Your task to perform on an android device: turn off location history Image 0: 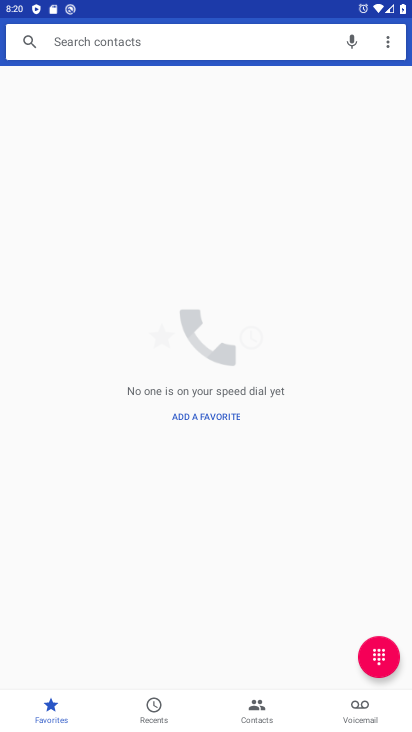
Step 0: press back button
Your task to perform on an android device: turn off location history Image 1: 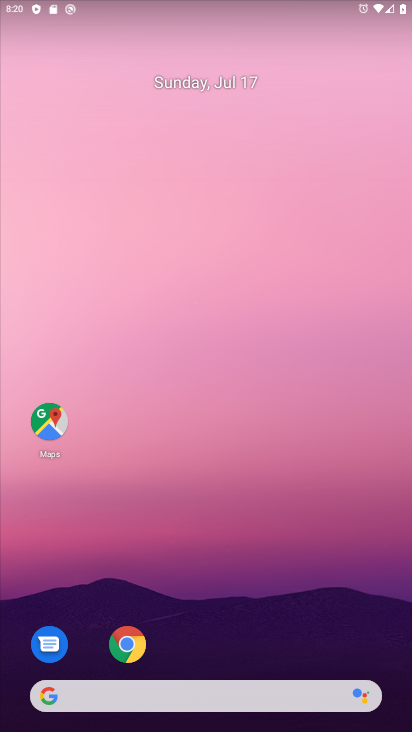
Step 1: drag from (212, 694) to (172, 109)
Your task to perform on an android device: turn off location history Image 2: 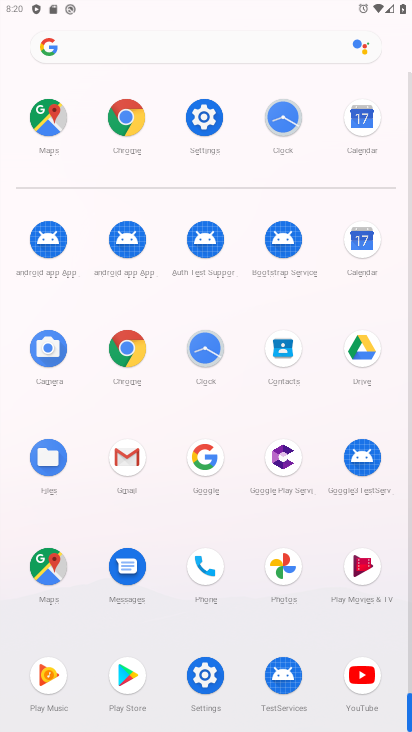
Step 2: click (204, 129)
Your task to perform on an android device: turn off location history Image 3: 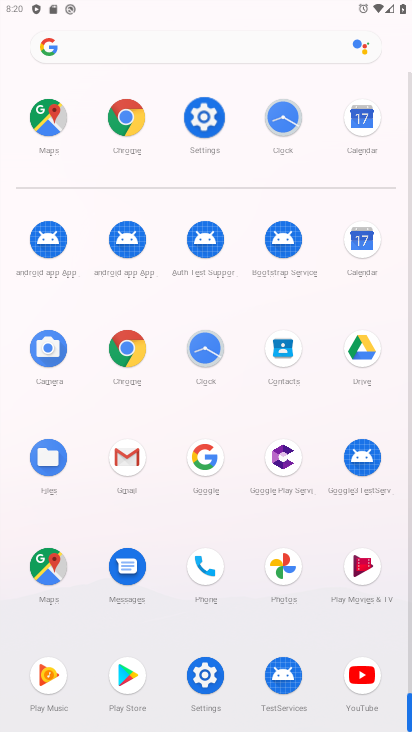
Step 3: click (203, 128)
Your task to perform on an android device: turn off location history Image 4: 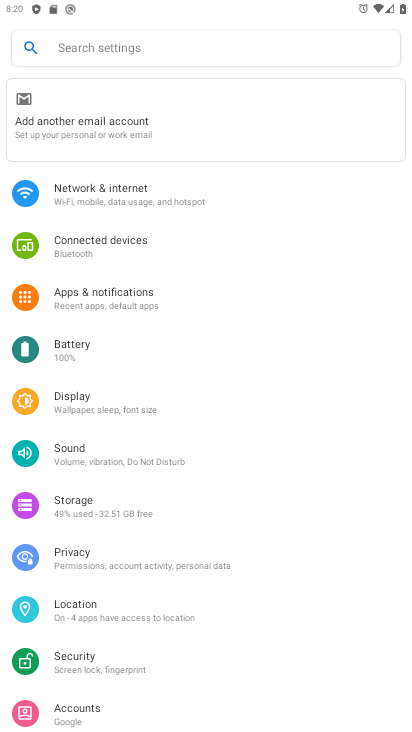
Step 4: drag from (132, 648) to (138, 331)
Your task to perform on an android device: turn off location history Image 5: 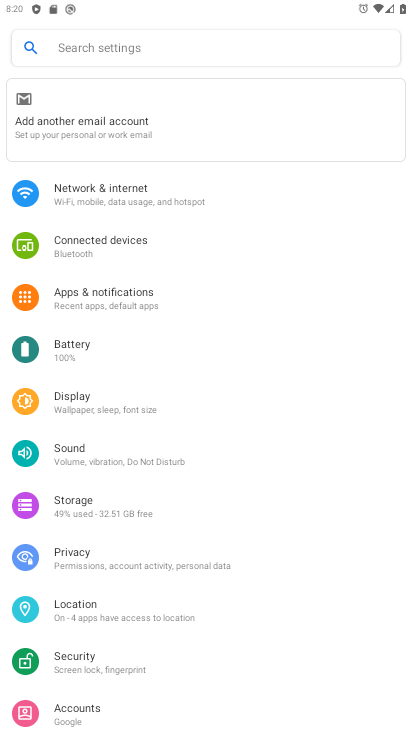
Step 5: drag from (138, 517) to (173, 344)
Your task to perform on an android device: turn off location history Image 6: 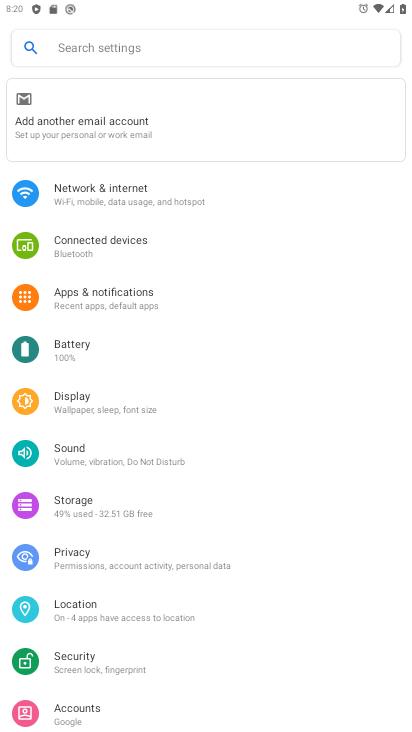
Step 6: click (77, 611)
Your task to perform on an android device: turn off location history Image 7: 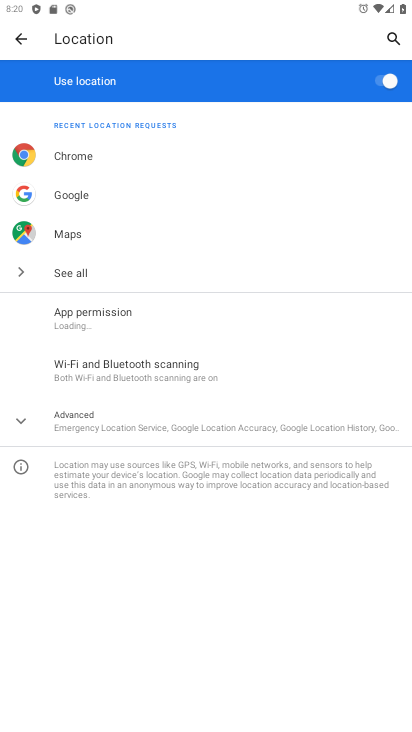
Step 7: click (396, 89)
Your task to perform on an android device: turn off location history Image 8: 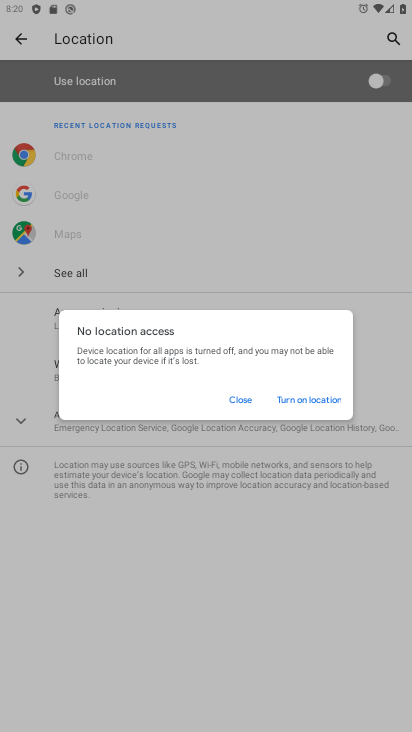
Step 8: task complete